Your task to perform on an android device: What's on my calendar today? Image 0: 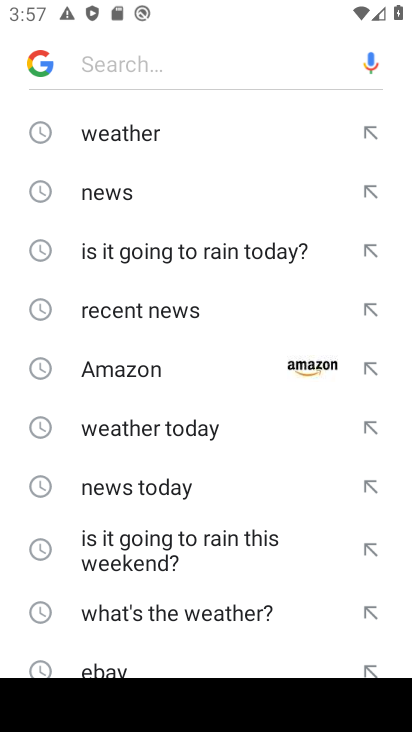
Step 0: press home button
Your task to perform on an android device: What's on my calendar today? Image 1: 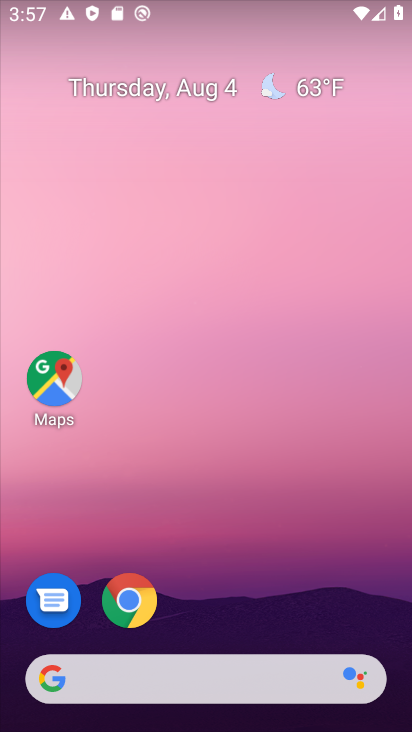
Step 1: drag from (257, 537) to (212, 27)
Your task to perform on an android device: What's on my calendar today? Image 2: 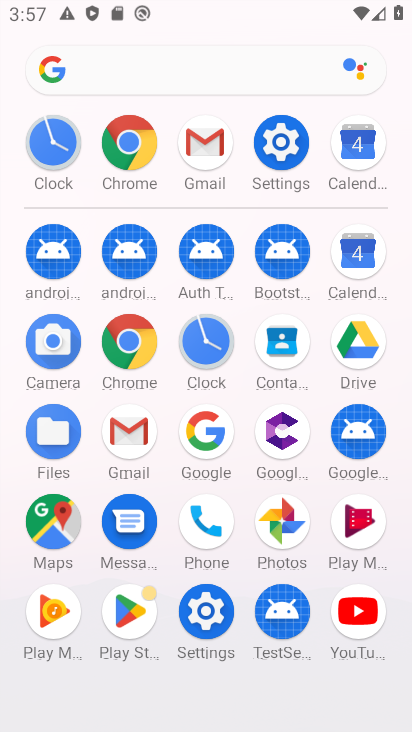
Step 2: click (360, 256)
Your task to perform on an android device: What's on my calendar today? Image 3: 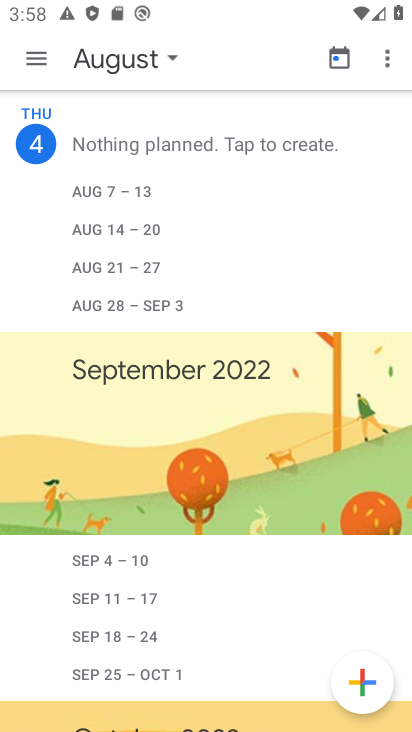
Step 3: task complete